Your task to perform on an android device: Check the weather Image 0: 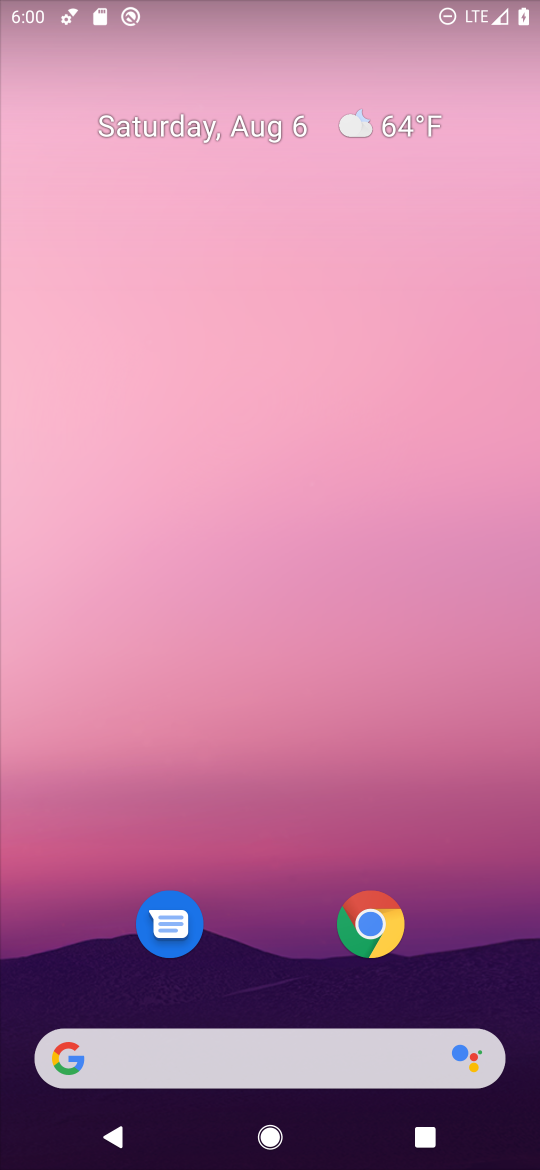
Step 0: click (239, 1052)
Your task to perform on an android device: Check the weather Image 1: 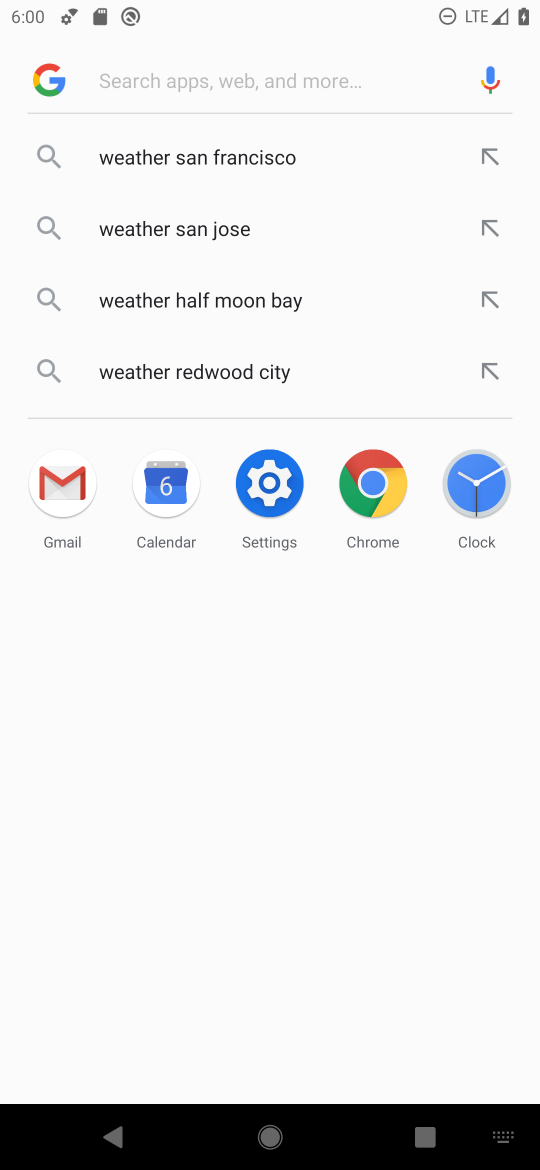
Step 1: type "weather"
Your task to perform on an android device: Check the weather Image 2: 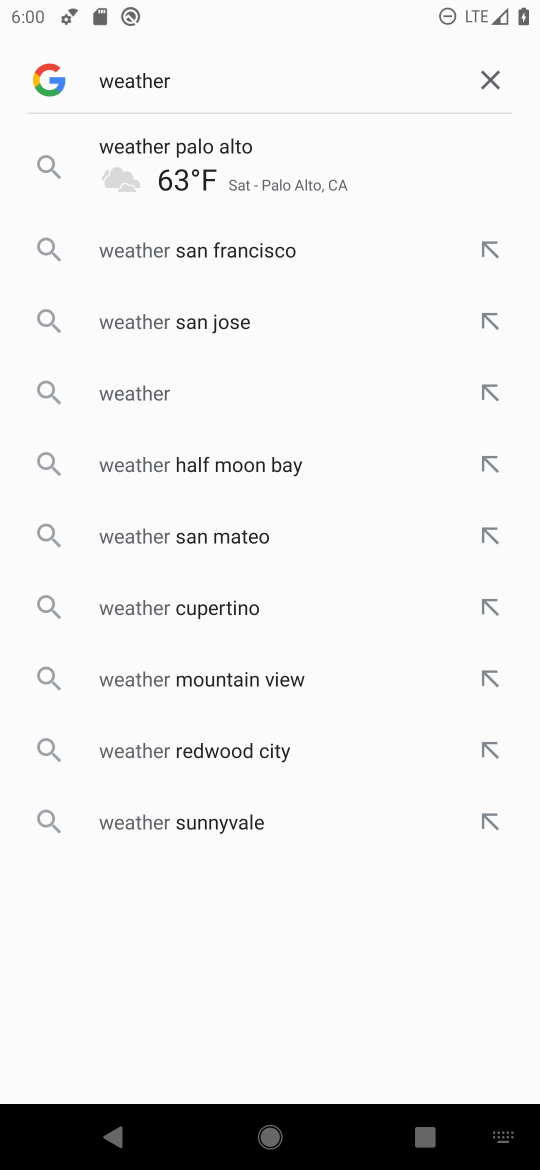
Step 2: click (138, 389)
Your task to perform on an android device: Check the weather Image 3: 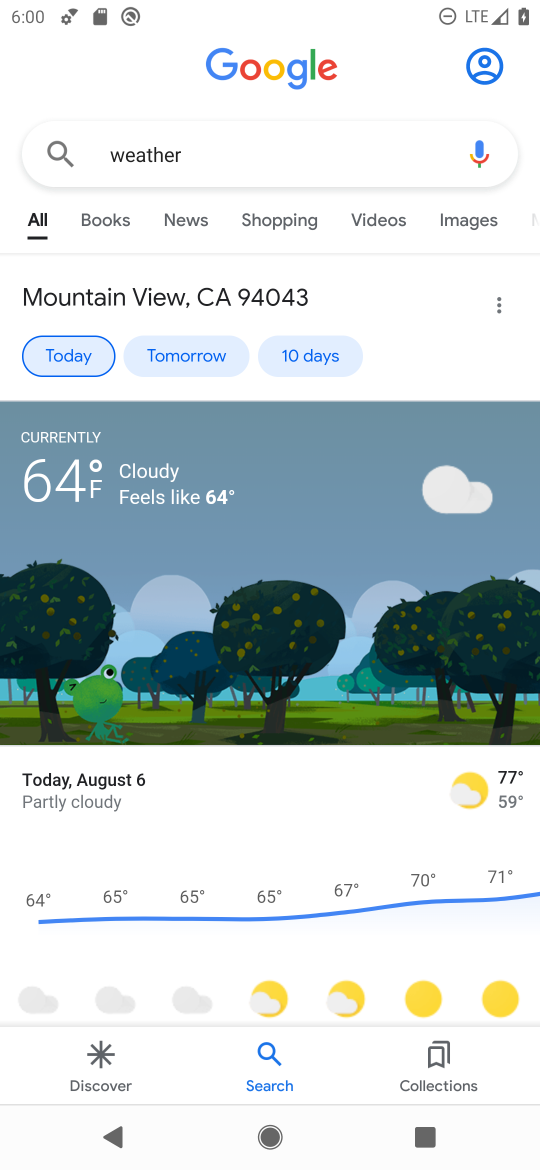
Step 3: task complete